Your task to perform on an android device: See recent photos Image 0: 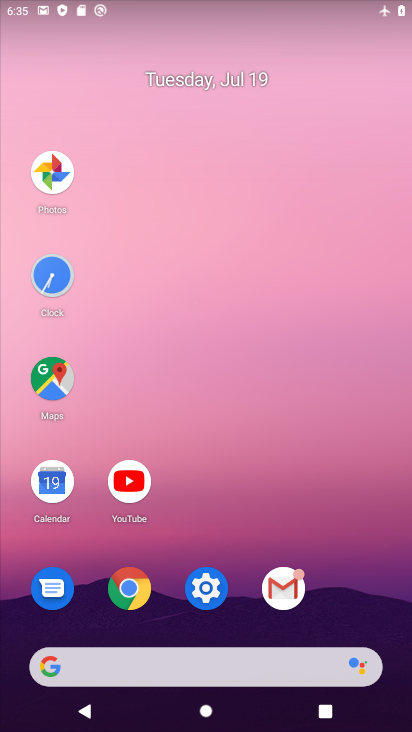
Step 0: click (54, 168)
Your task to perform on an android device: See recent photos Image 1: 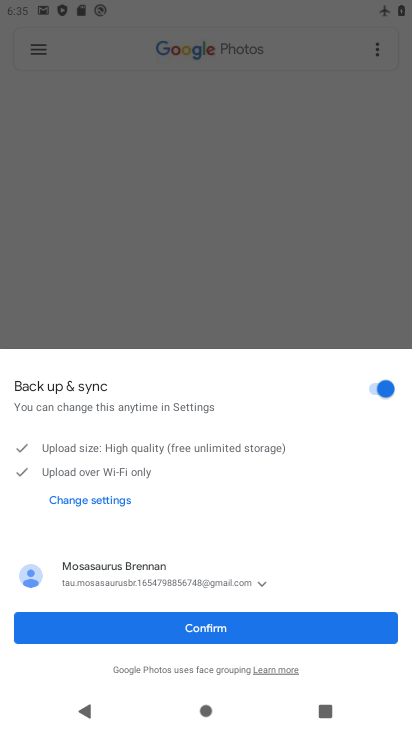
Step 1: click (212, 629)
Your task to perform on an android device: See recent photos Image 2: 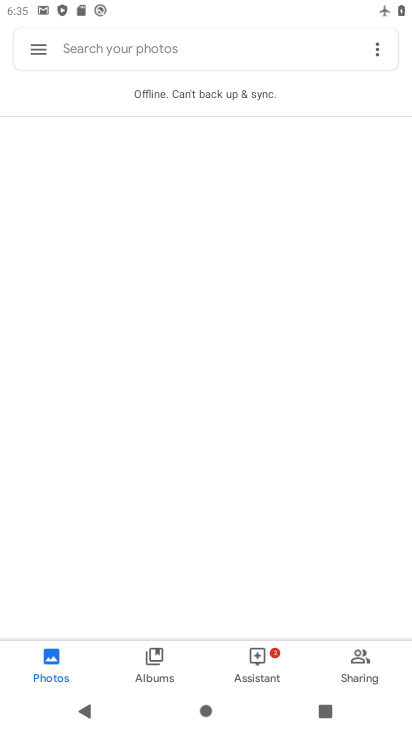
Step 2: click (183, 252)
Your task to perform on an android device: See recent photos Image 3: 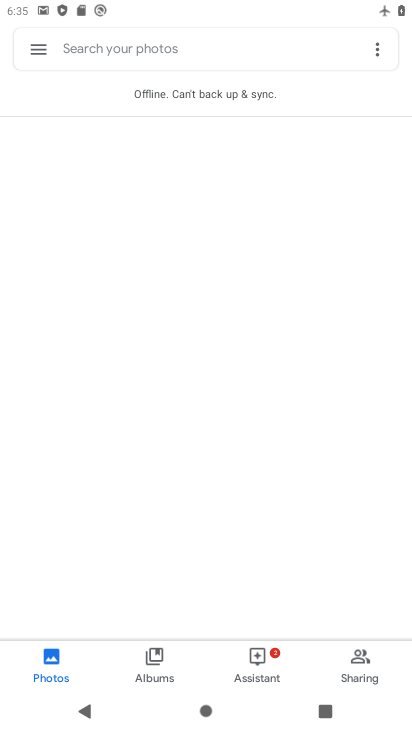
Step 3: task complete